Your task to perform on an android device: toggle priority inbox in the gmail app Image 0: 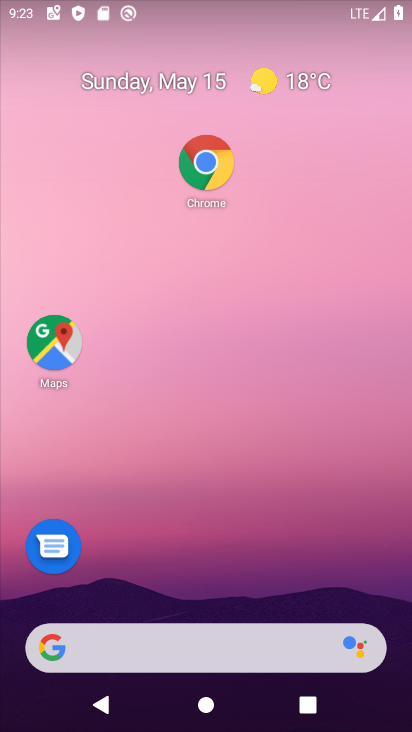
Step 0: drag from (225, 466) to (219, 263)
Your task to perform on an android device: toggle priority inbox in the gmail app Image 1: 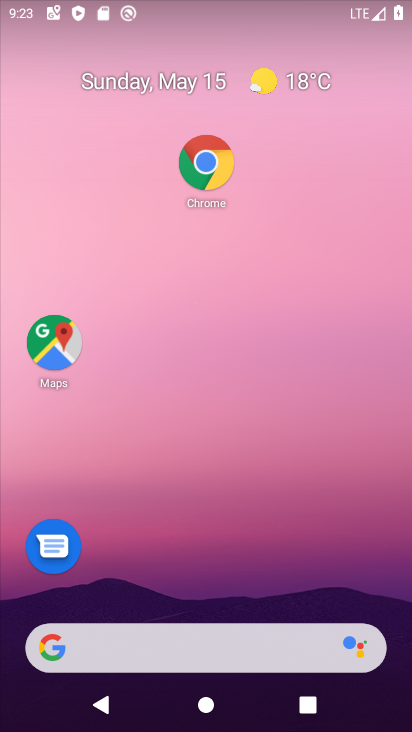
Step 1: drag from (267, 336) to (269, 244)
Your task to perform on an android device: toggle priority inbox in the gmail app Image 2: 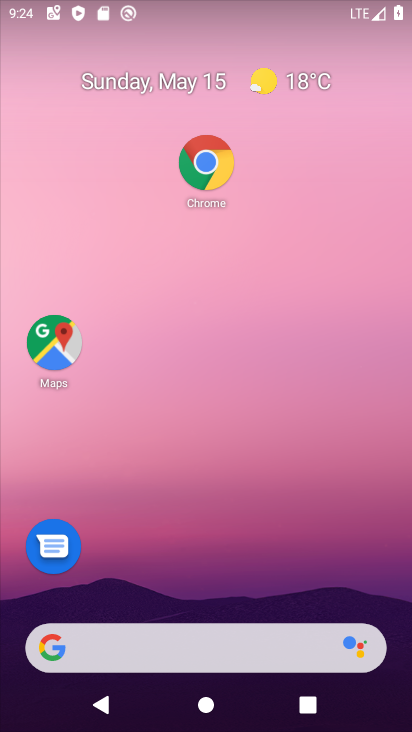
Step 2: drag from (221, 595) to (223, 255)
Your task to perform on an android device: toggle priority inbox in the gmail app Image 3: 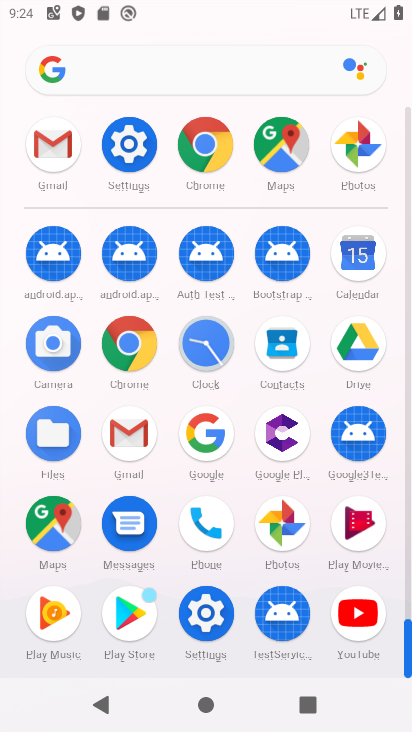
Step 3: click (47, 148)
Your task to perform on an android device: toggle priority inbox in the gmail app Image 4: 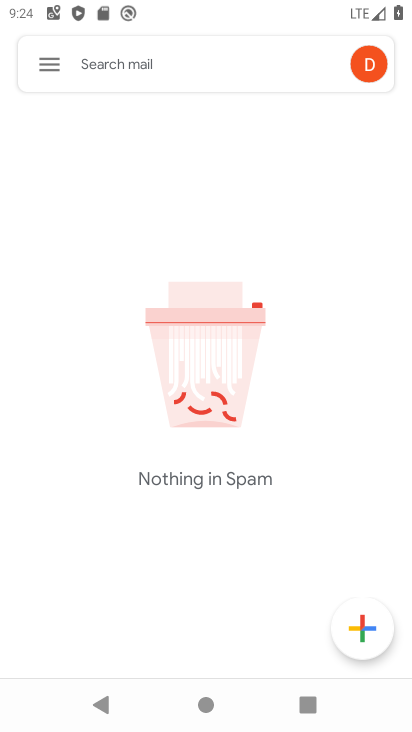
Step 4: click (38, 61)
Your task to perform on an android device: toggle priority inbox in the gmail app Image 5: 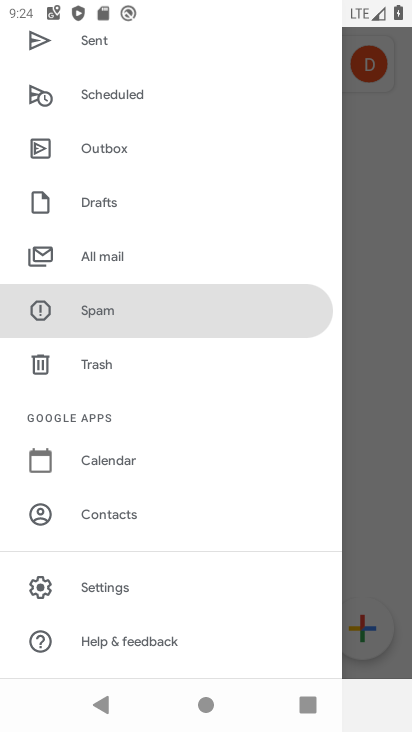
Step 5: click (171, 586)
Your task to perform on an android device: toggle priority inbox in the gmail app Image 6: 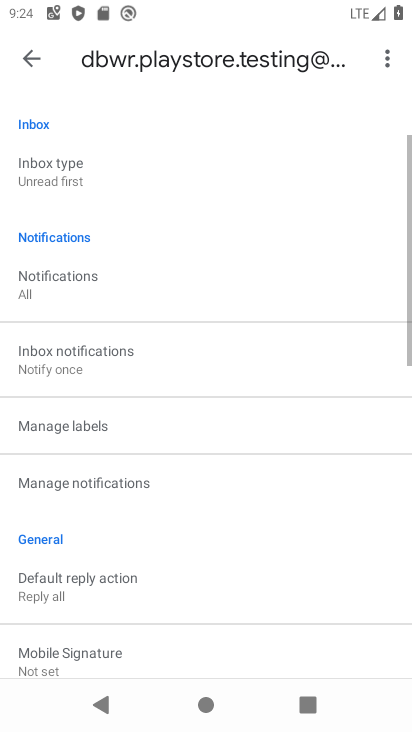
Step 6: click (83, 301)
Your task to perform on an android device: toggle priority inbox in the gmail app Image 7: 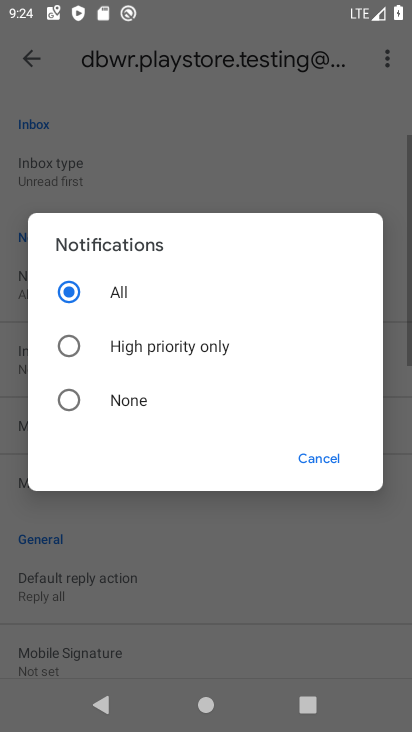
Step 7: click (84, 164)
Your task to perform on an android device: toggle priority inbox in the gmail app Image 8: 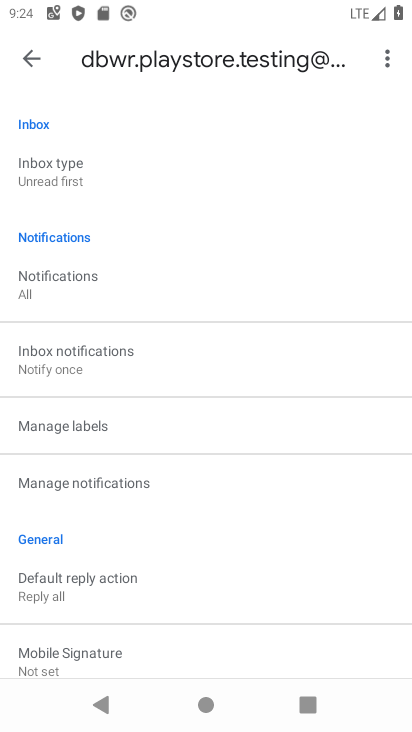
Step 8: click (64, 170)
Your task to perform on an android device: toggle priority inbox in the gmail app Image 9: 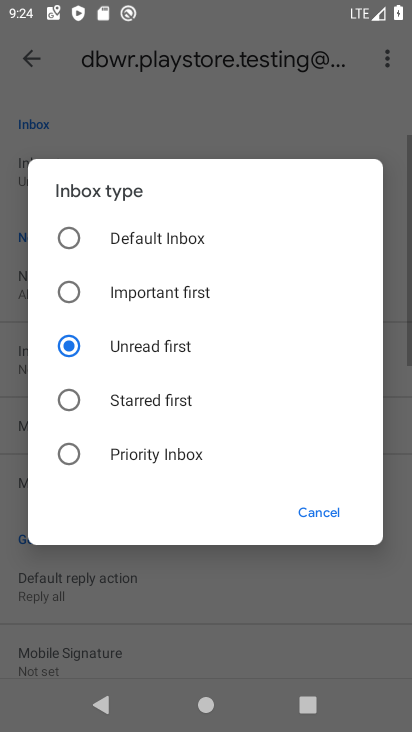
Step 9: click (175, 456)
Your task to perform on an android device: toggle priority inbox in the gmail app Image 10: 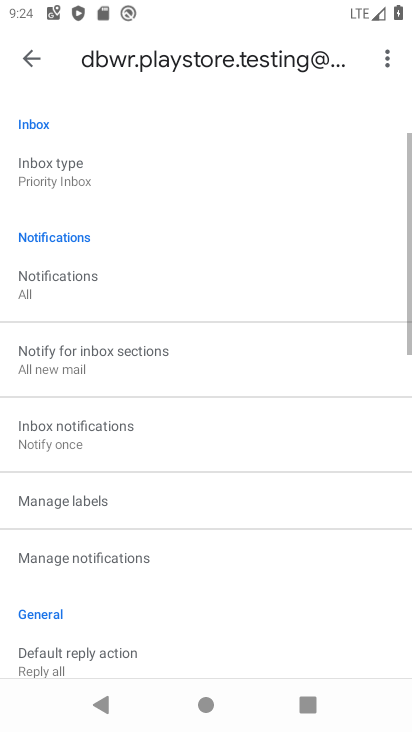
Step 10: task complete